Your task to perform on an android device: Search for the best rated circular saw on Lowes.com Image 0: 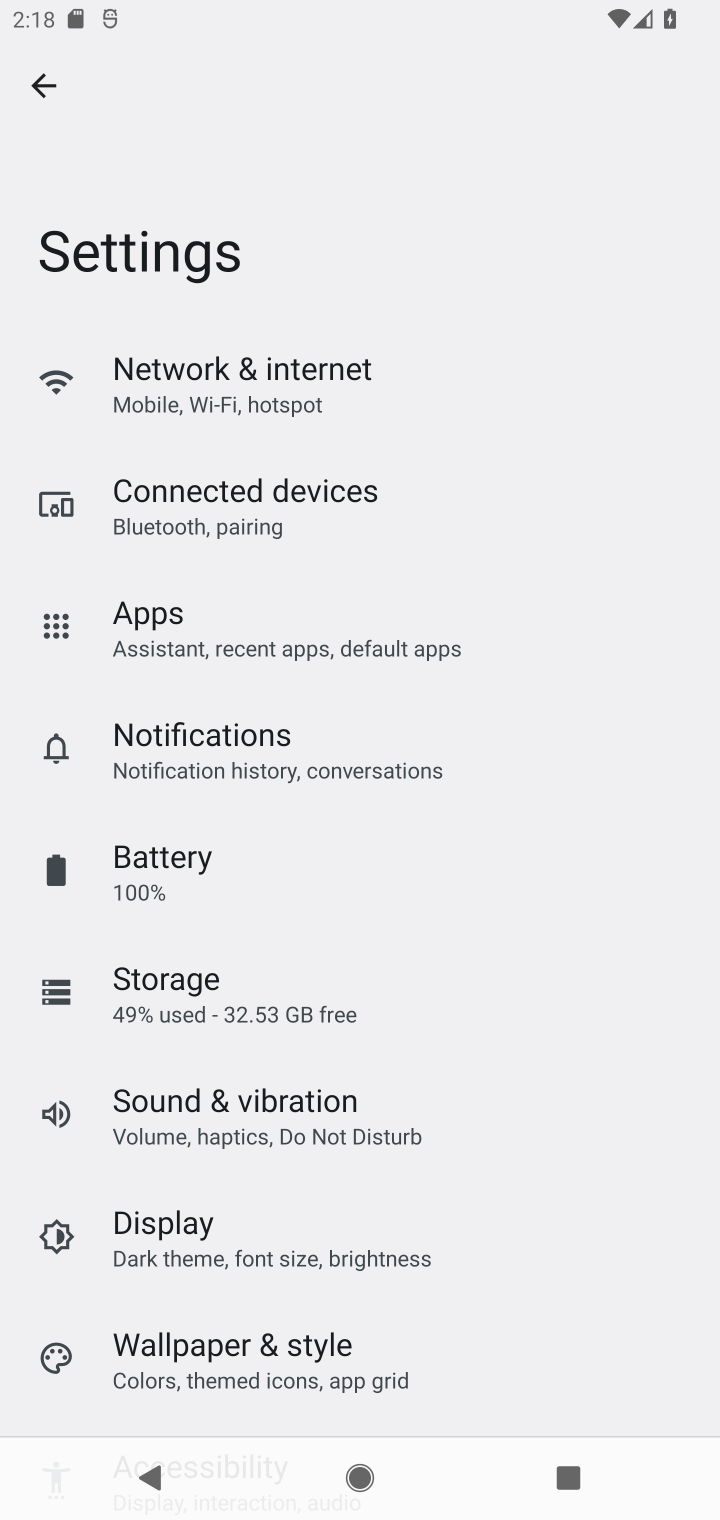
Step 0: press home button
Your task to perform on an android device: Search for the best rated circular saw on Lowes.com Image 1: 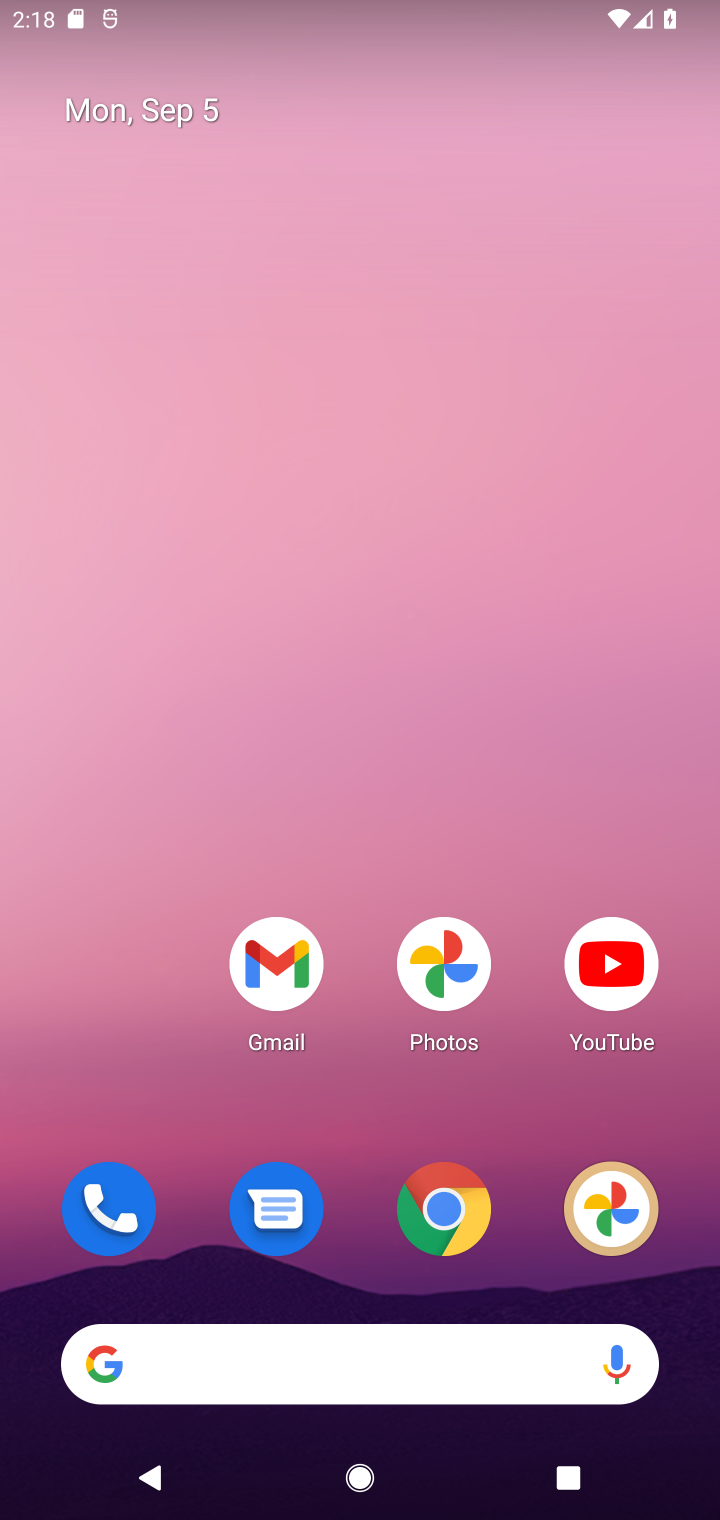
Step 1: drag from (427, 450) to (439, 254)
Your task to perform on an android device: Search for the best rated circular saw on Lowes.com Image 2: 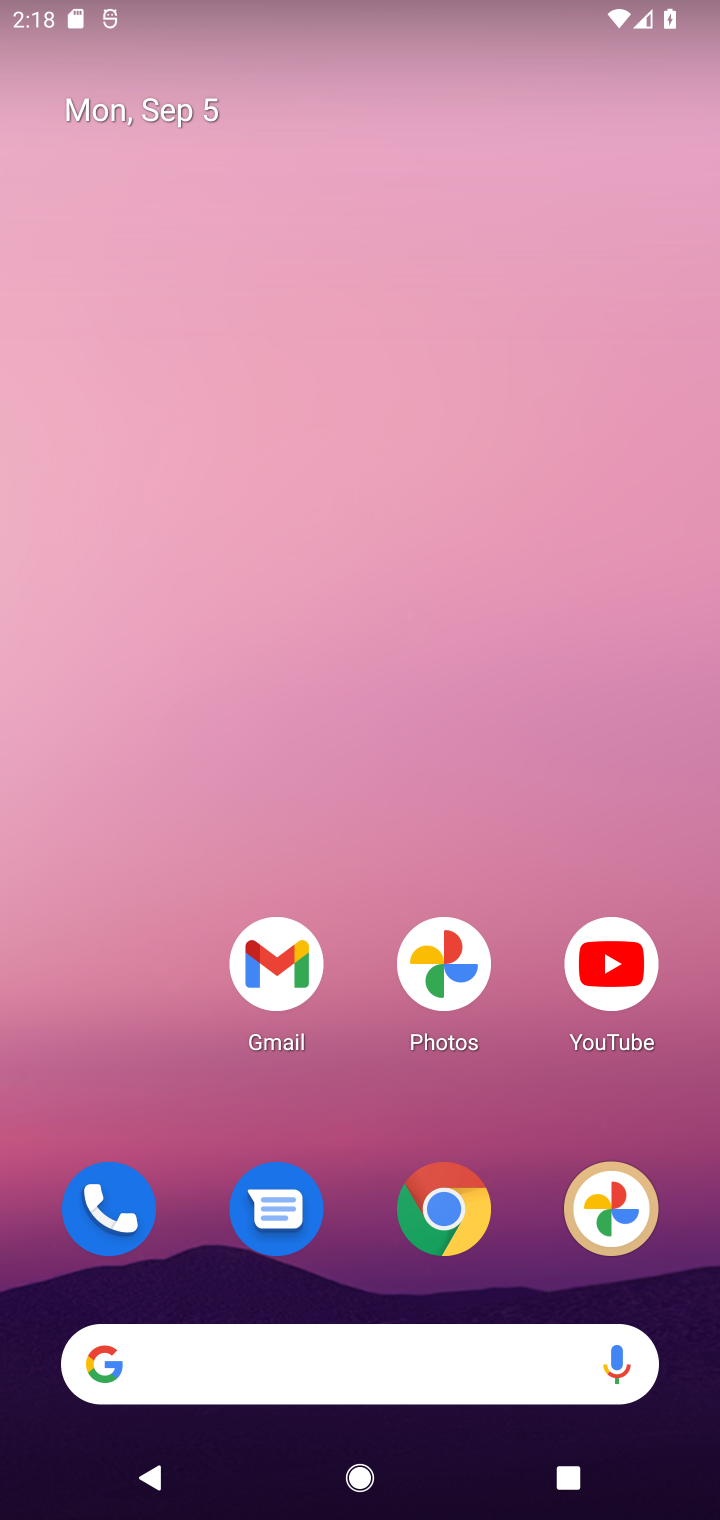
Step 2: drag from (268, 1373) to (341, 215)
Your task to perform on an android device: Search for the best rated circular saw on Lowes.com Image 3: 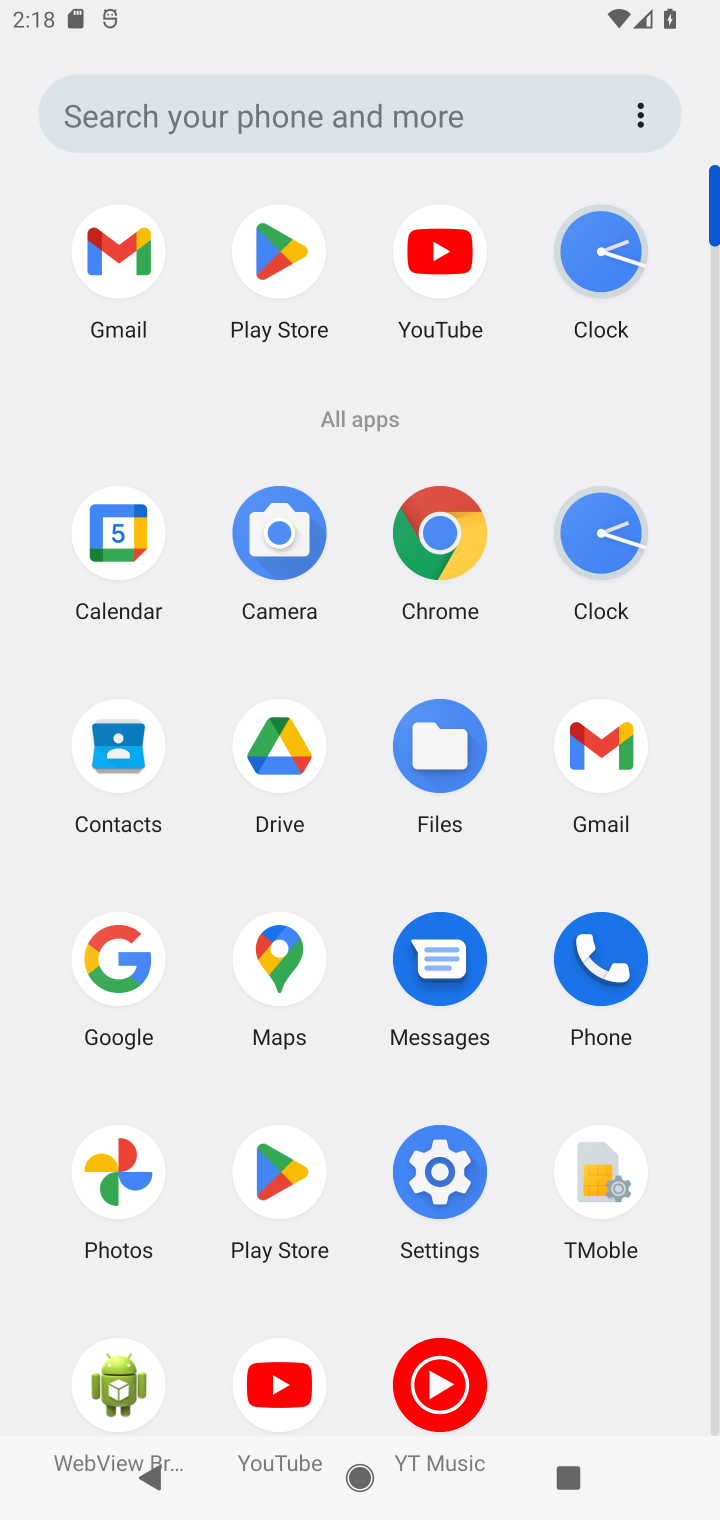
Step 3: click (93, 943)
Your task to perform on an android device: Search for the best rated circular saw on Lowes.com Image 4: 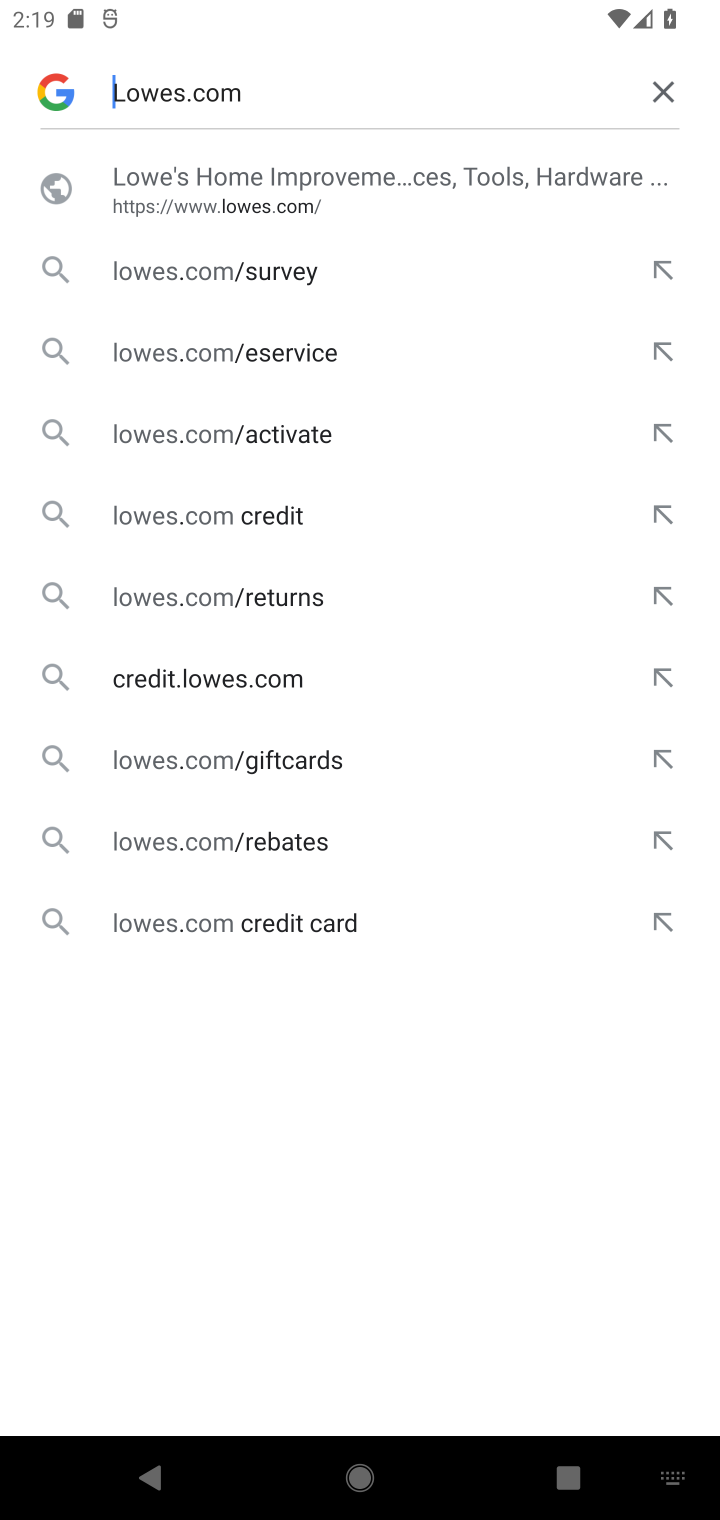
Step 4: click (290, 197)
Your task to perform on an android device: Search for the best rated circular saw on Lowes.com Image 5: 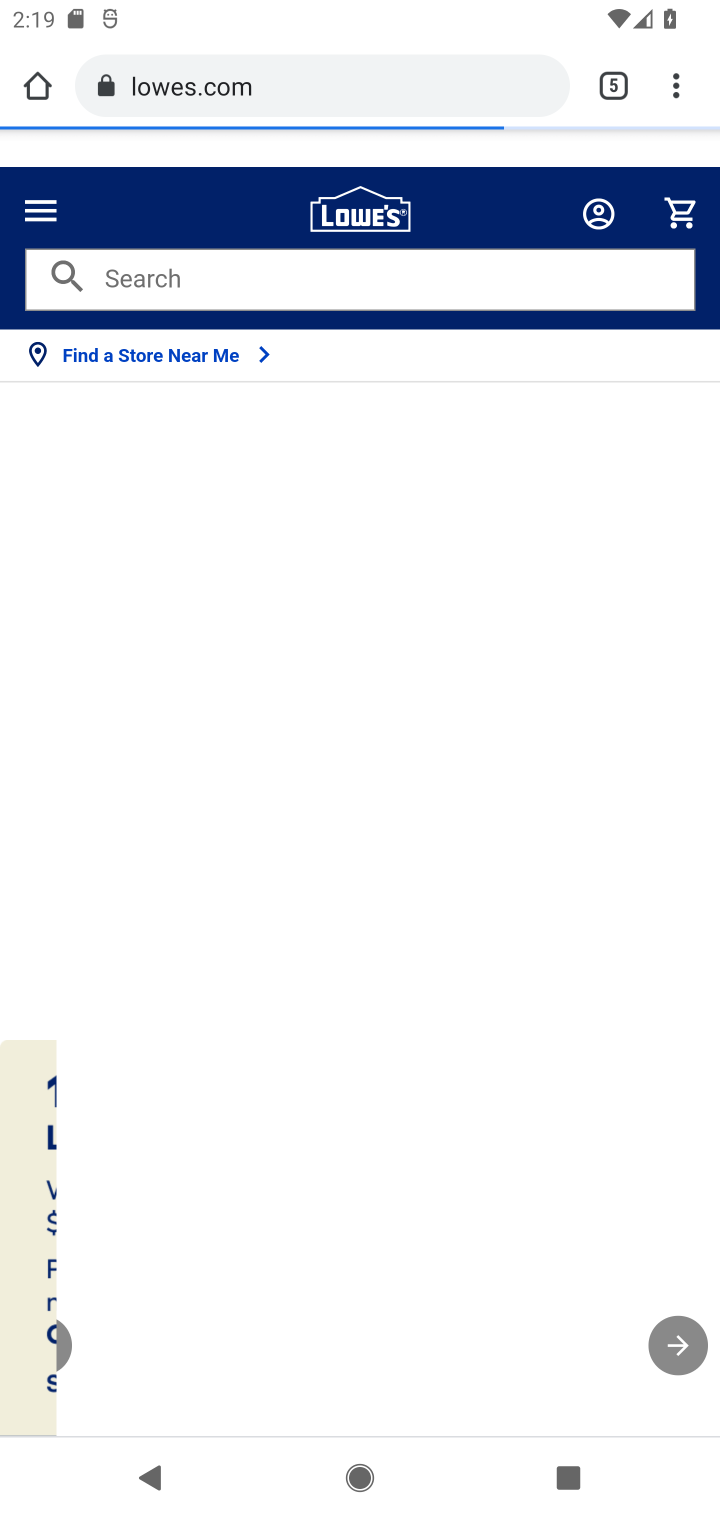
Step 5: click (275, 282)
Your task to perform on an android device: Search for the best rated circular saw on Lowes.com Image 6: 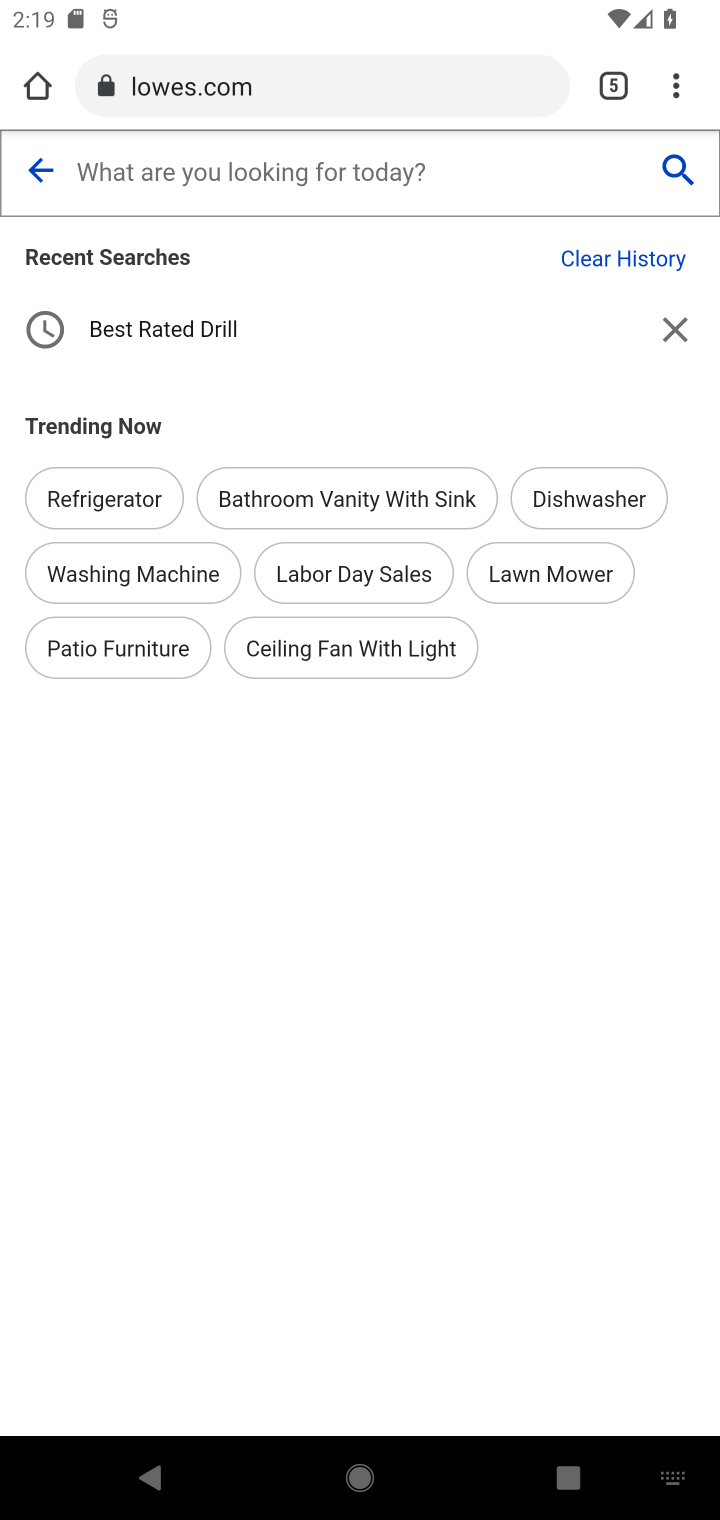
Step 6: type "best rated circular saw"
Your task to perform on an android device: Search for the best rated circular saw on Lowes.com Image 7: 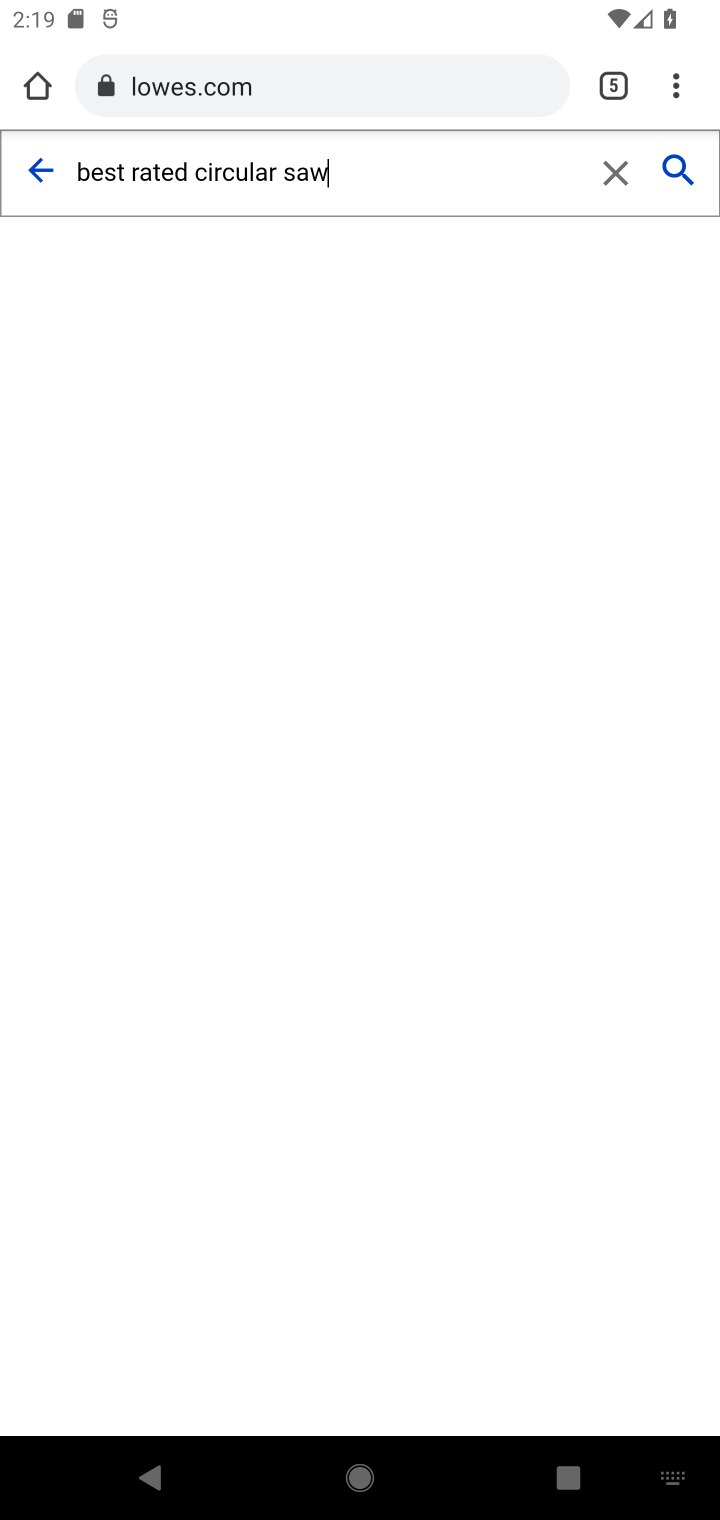
Step 7: click (277, 174)
Your task to perform on an android device: Search for the best rated circular saw on Lowes.com Image 8: 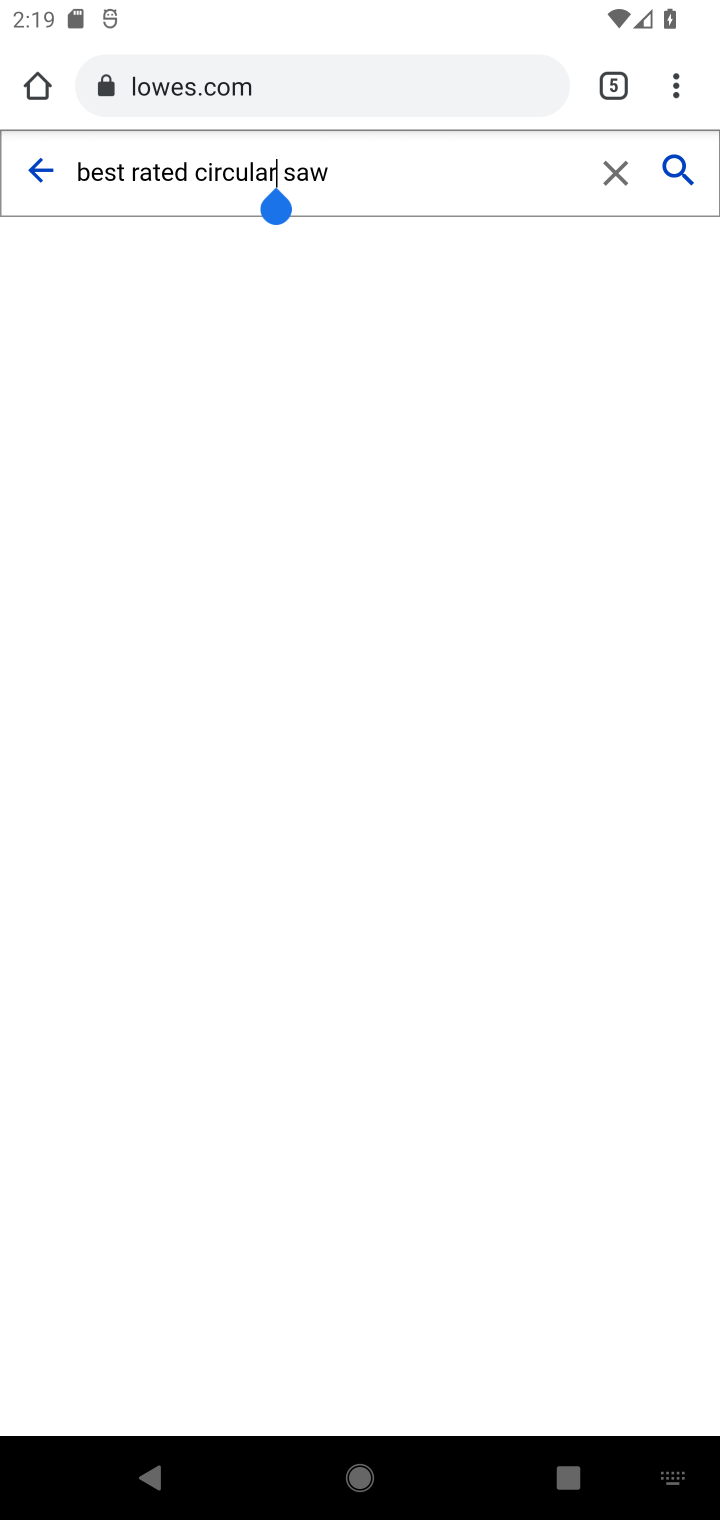
Step 8: click (198, 183)
Your task to perform on an android device: Search for the best rated circular saw on Lowes.com Image 9: 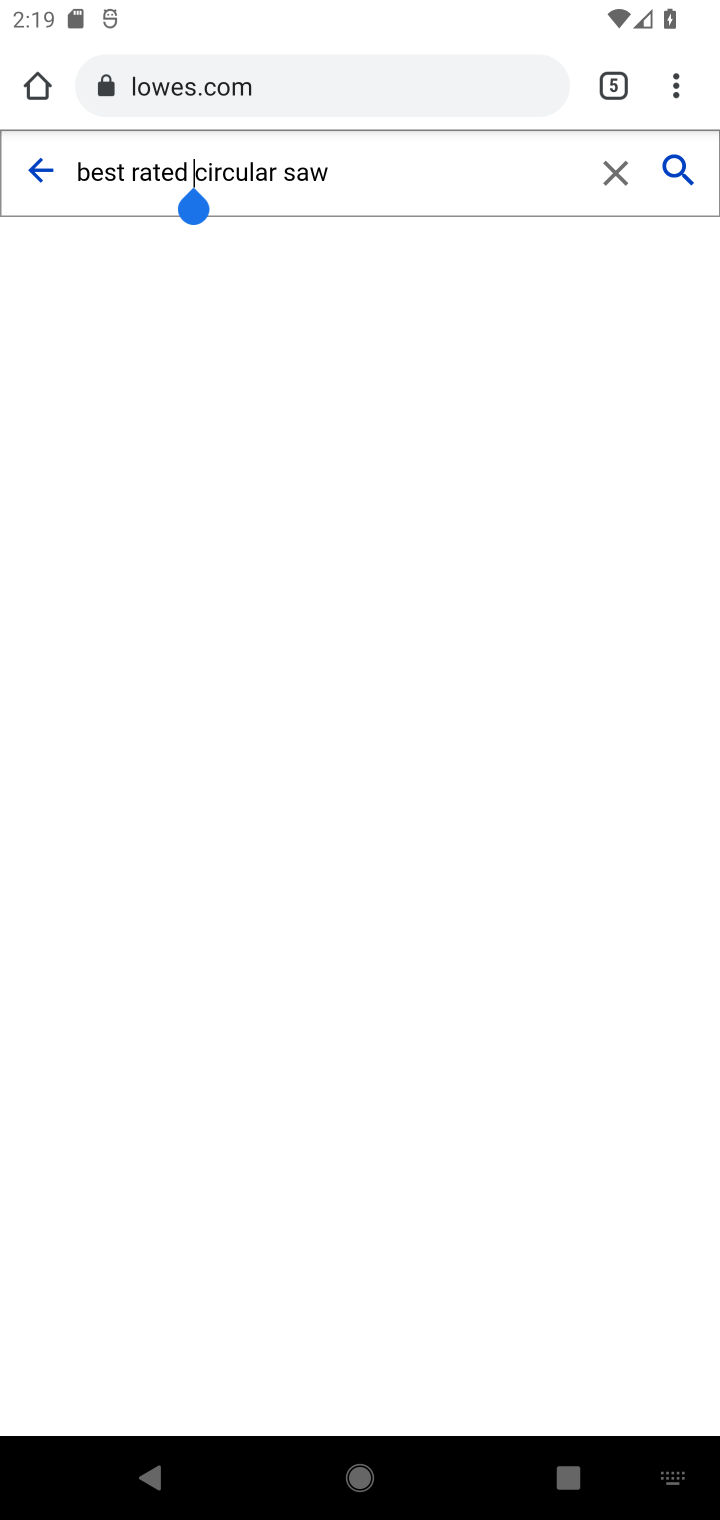
Step 9: click (687, 170)
Your task to perform on an android device: Search for the best rated circular saw on Lowes.com Image 10: 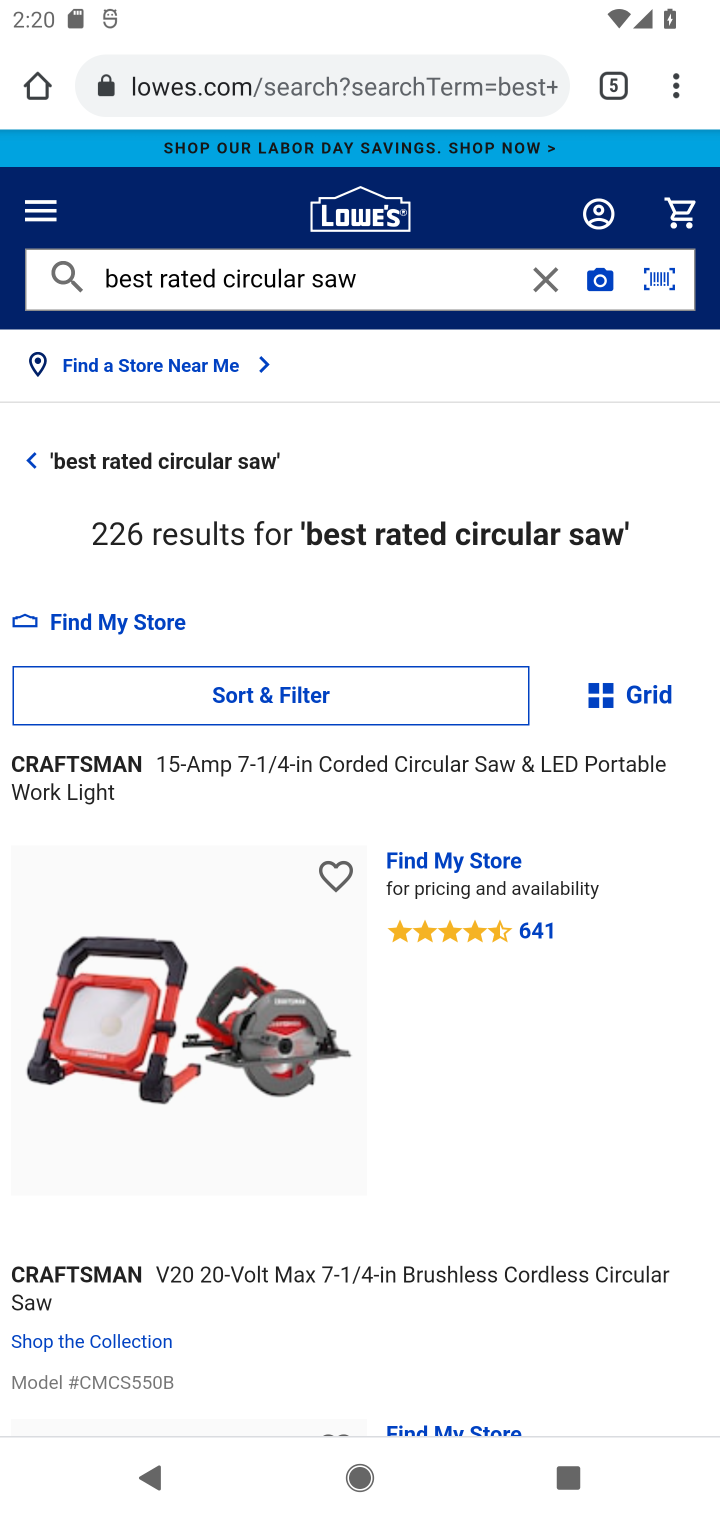
Step 10: task complete